Your task to perform on an android device: Go to location settings Image 0: 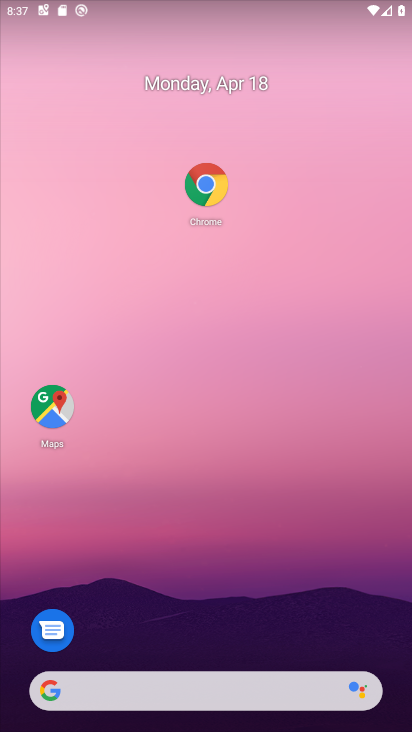
Step 0: drag from (256, 552) to (410, 125)
Your task to perform on an android device: Go to location settings Image 1: 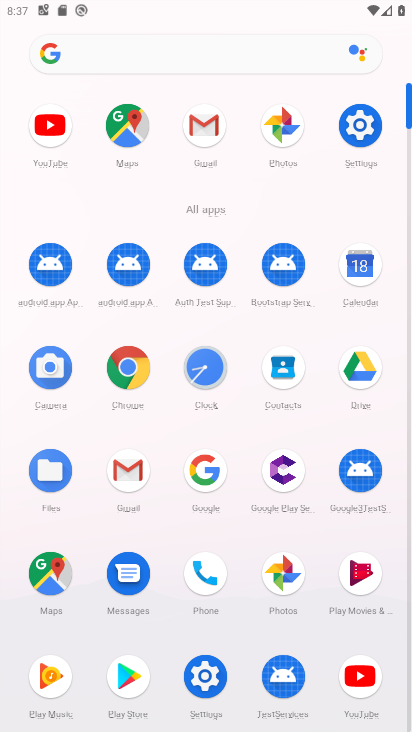
Step 1: click (359, 133)
Your task to perform on an android device: Go to location settings Image 2: 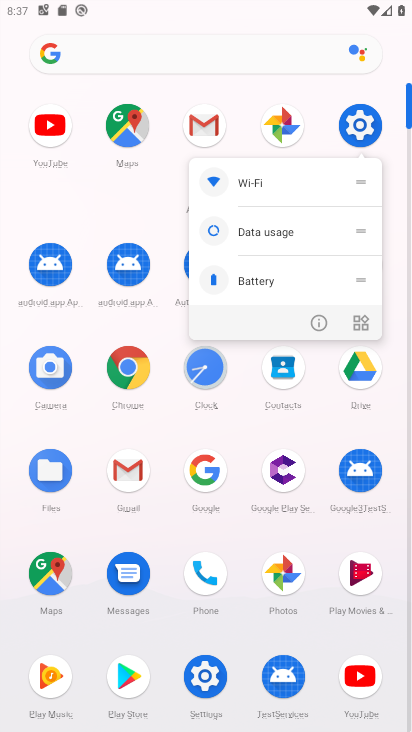
Step 2: click (368, 119)
Your task to perform on an android device: Go to location settings Image 3: 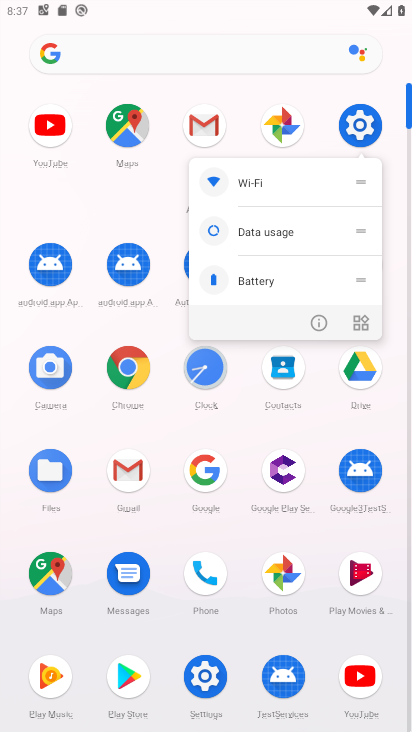
Step 3: click (368, 117)
Your task to perform on an android device: Go to location settings Image 4: 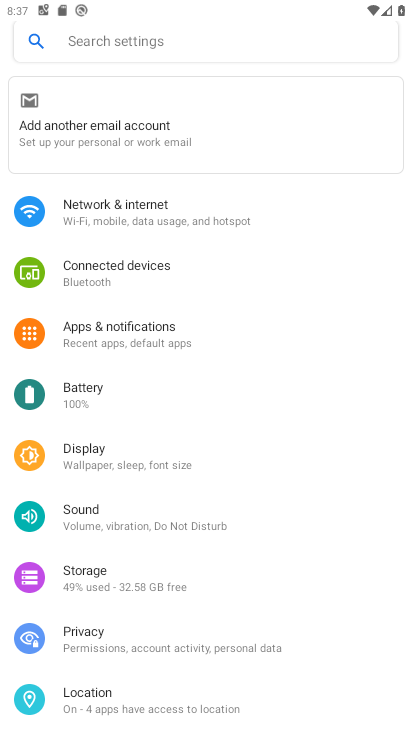
Step 4: click (101, 691)
Your task to perform on an android device: Go to location settings Image 5: 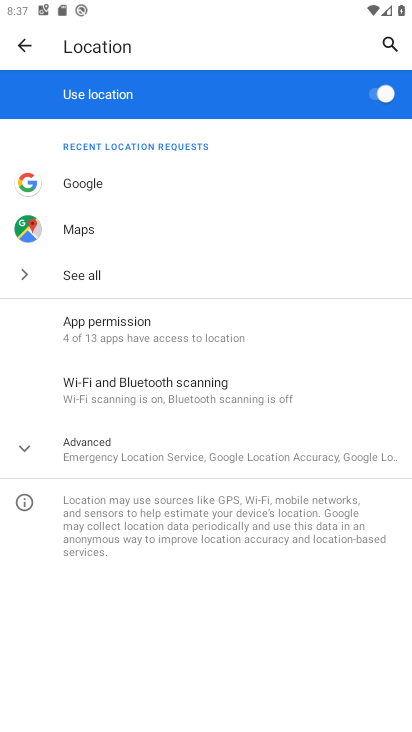
Step 5: task complete